Your task to perform on an android device: toggle improve location accuracy Image 0: 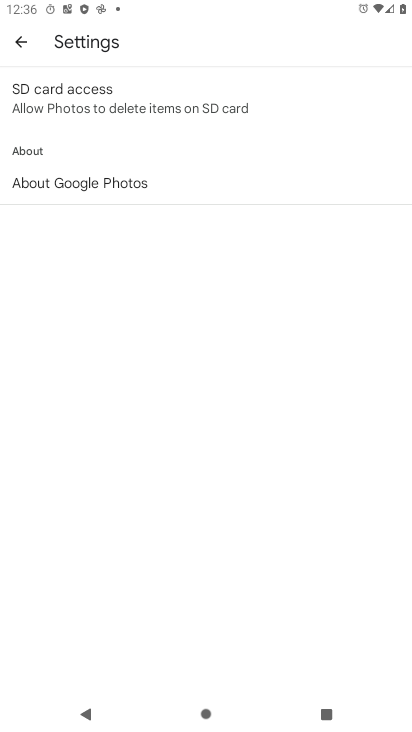
Step 0: press home button
Your task to perform on an android device: toggle improve location accuracy Image 1: 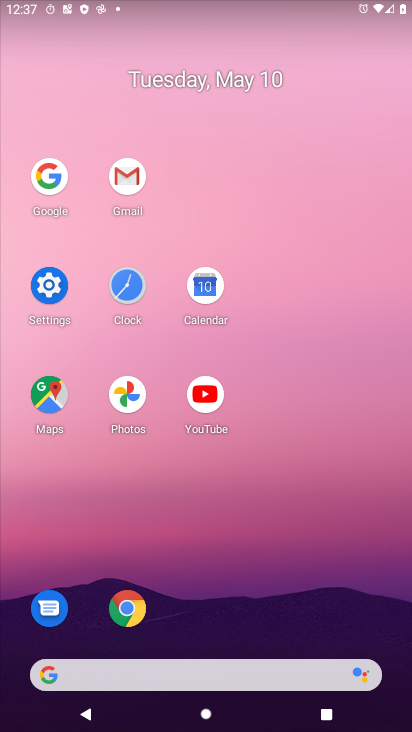
Step 1: click (45, 291)
Your task to perform on an android device: toggle improve location accuracy Image 2: 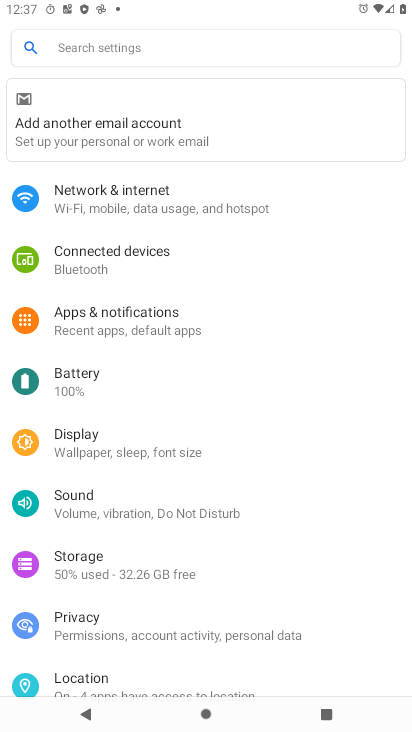
Step 2: drag from (278, 614) to (235, 310)
Your task to perform on an android device: toggle improve location accuracy Image 3: 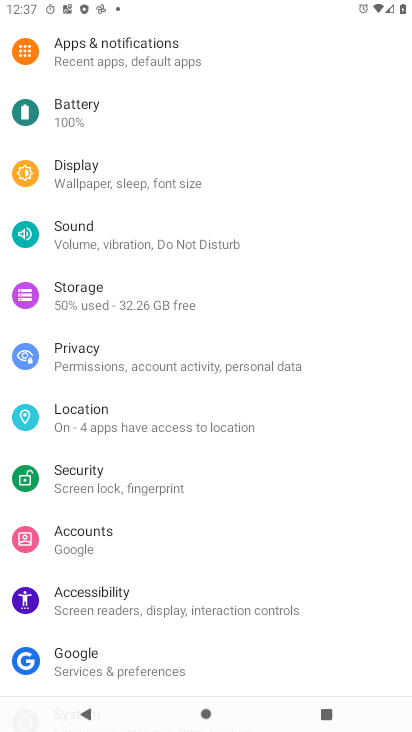
Step 3: click (160, 427)
Your task to perform on an android device: toggle improve location accuracy Image 4: 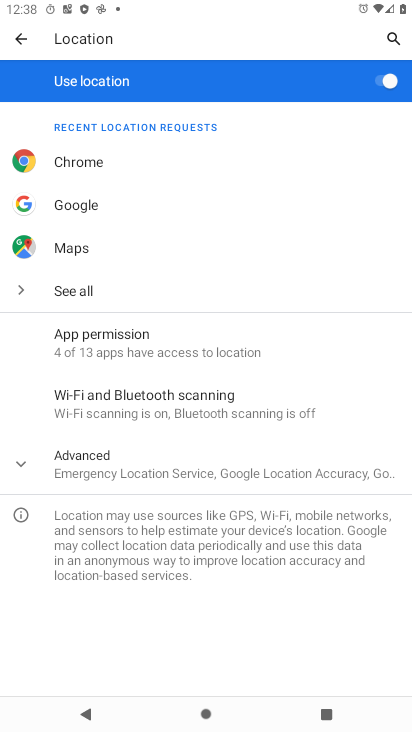
Step 4: click (126, 463)
Your task to perform on an android device: toggle improve location accuracy Image 5: 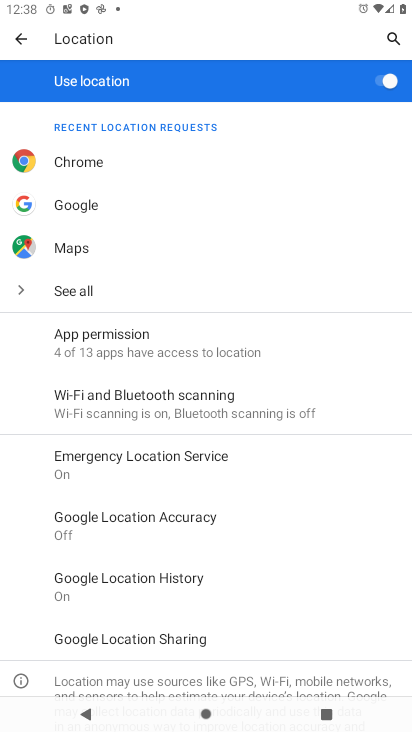
Step 5: click (181, 526)
Your task to perform on an android device: toggle improve location accuracy Image 6: 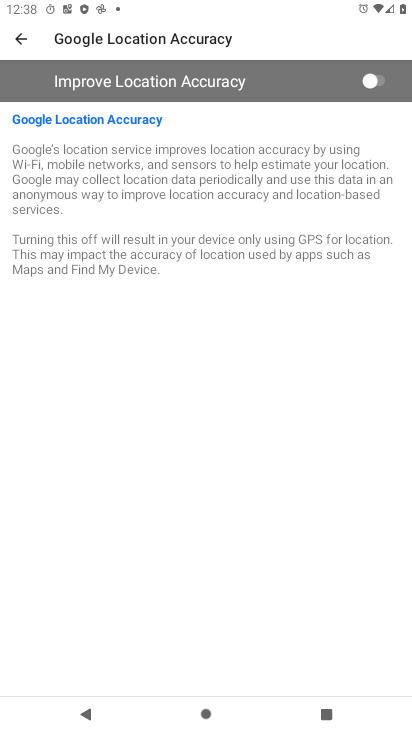
Step 6: click (365, 67)
Your task to perform on an android device: toggle improve location accuracy Image 7: 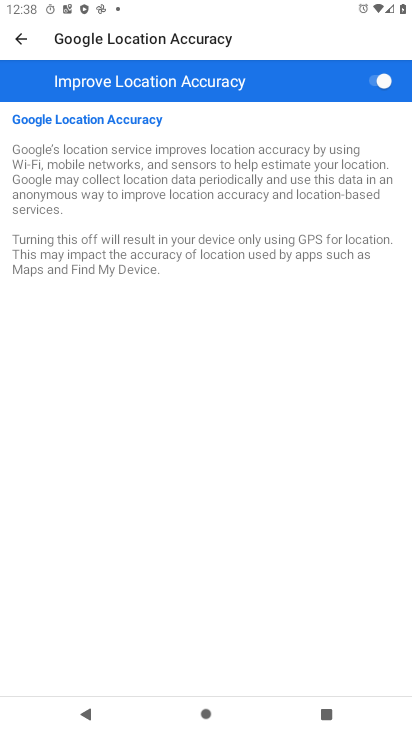
Step 7: task complete